Your task to perform on an android device: change the upload size in google photos Image 0: 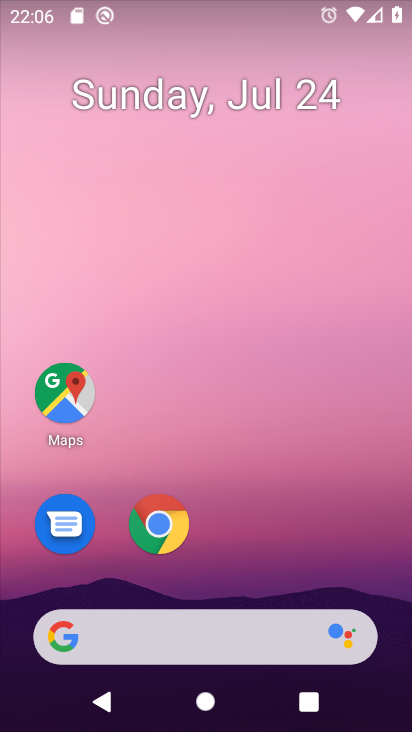
Step 0: drag from (282, 547) to (269, 54)
Your task to perform on an android device: change the upload size in google photos Image 1: 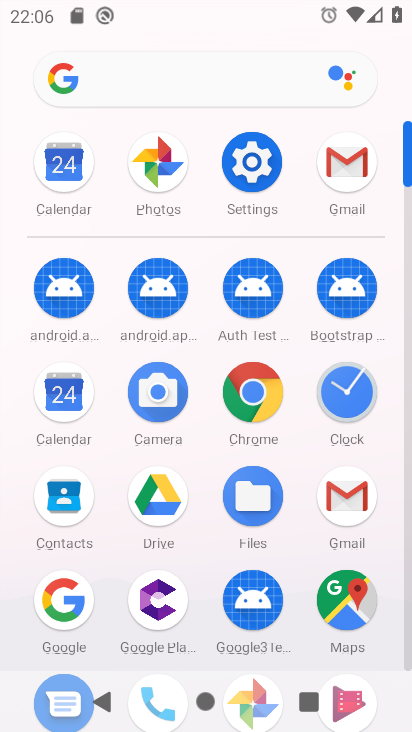
Step 1: click (160, 172)
Your task to perform on an android device: change the upload size in google photos Image 2: 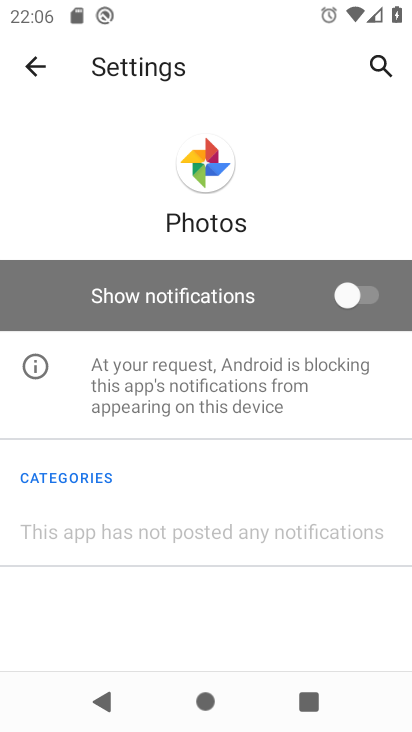
Step 2: click (40, 61)
Your task to perform on an android device: change the upload size in google photos Image 3: 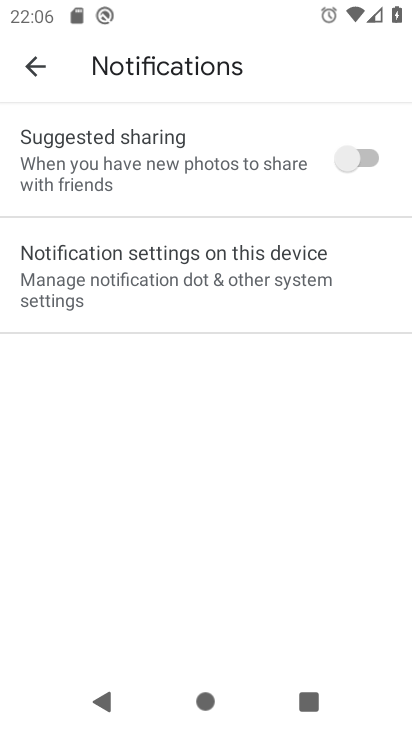
Step 3: click (40, 63)
Your task to perform on an android device: change the upload size in google photos Image 4: 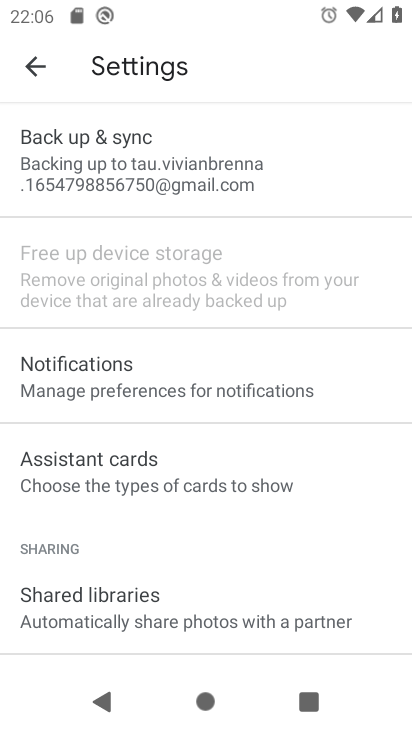
Step 4: click (105, 163)
Your task to perform on an android device: change the upload size in google photos Image 5: 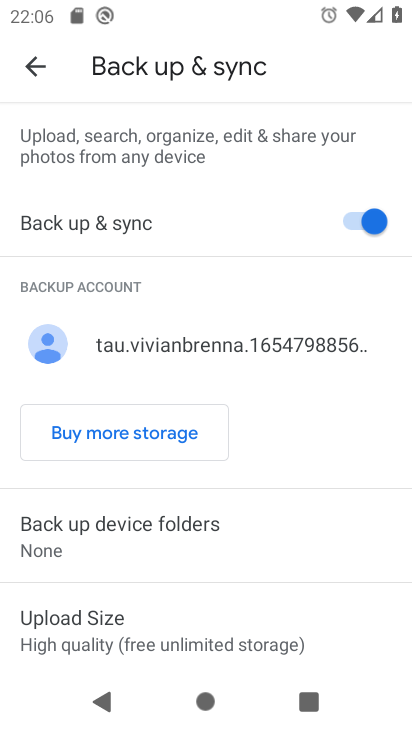
Step 5: click (141, 619)
Your task to perform on an android device: change the upload size in google photos Image 6: 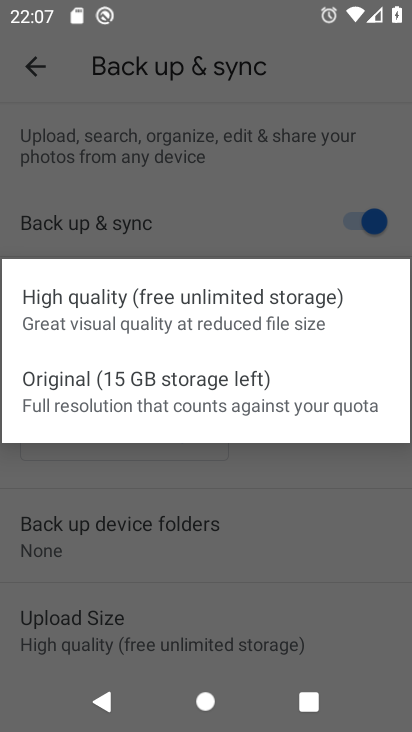
Step 6: click (217, 389)
Your task to perform on an android device: change the upload size in google photos Image 7: 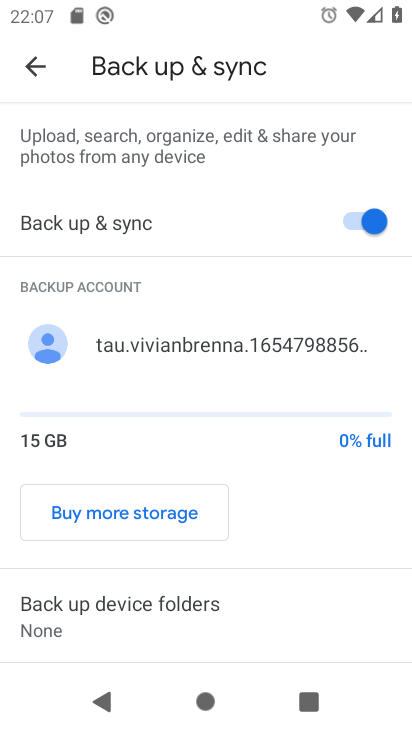
Step 7: task complete